Your task to perform on an android device: Go to Google Image 0: 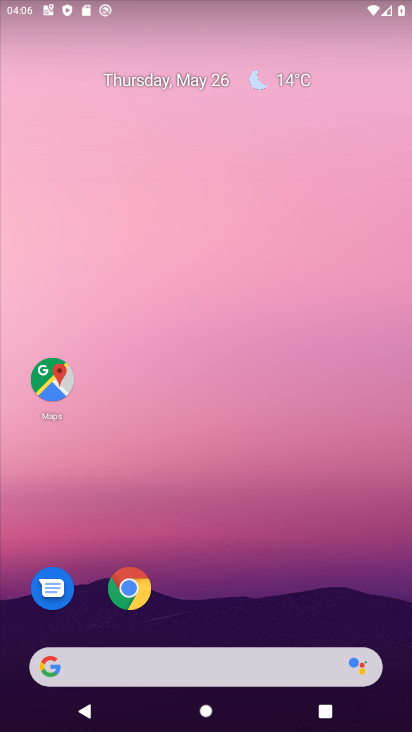
Step 0: click (149, 661)
Your task to perform on an android device: Go to Google Image 1: 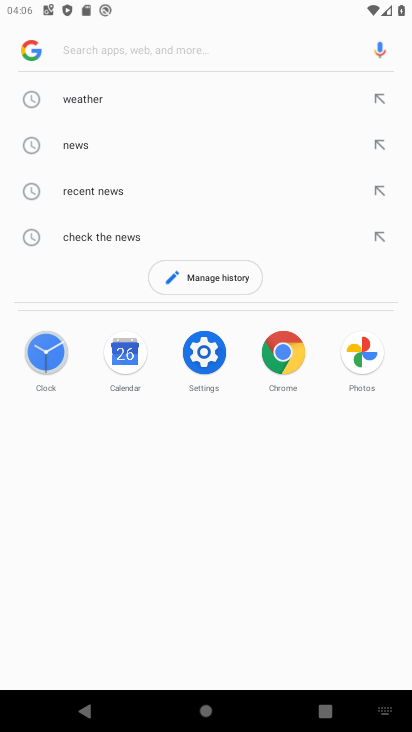
Step 1: type "google.com"
Your task to perform on an android device: Go to Google Image 2: 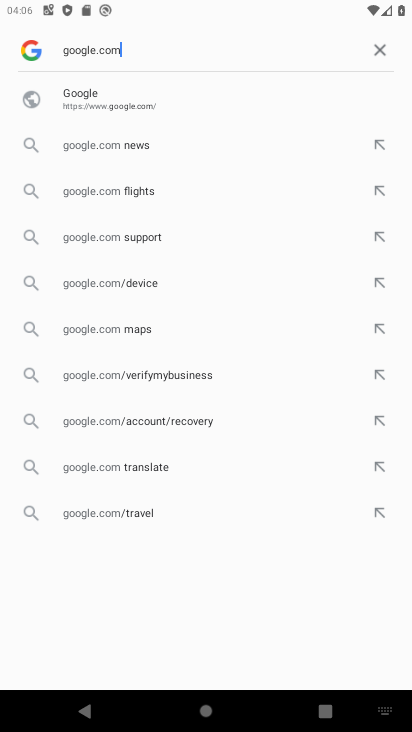
Step 2: click (209, 115)
Your task to perform on an android device: Go to Google Image 3: 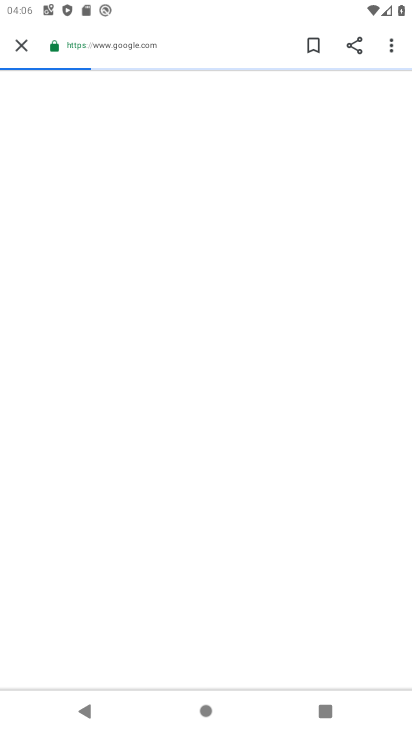
Step 3: task complete